Your task to perform on an android device: Play the last video I watched on Youtube Image 0: 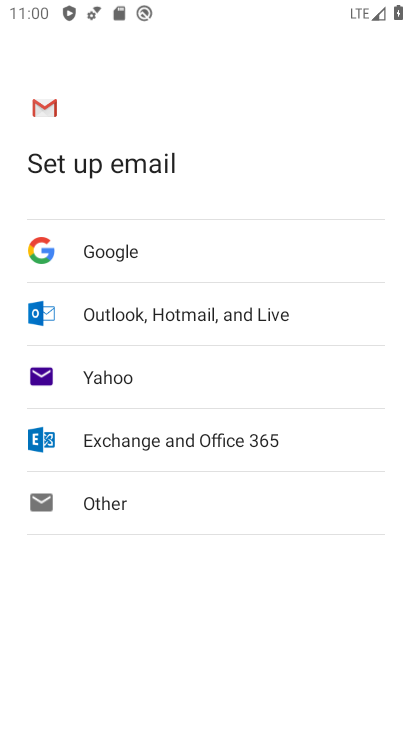
Step 0: press home button
Your task to perform on an android device: Play the last video I watched on Youtube Image 1: 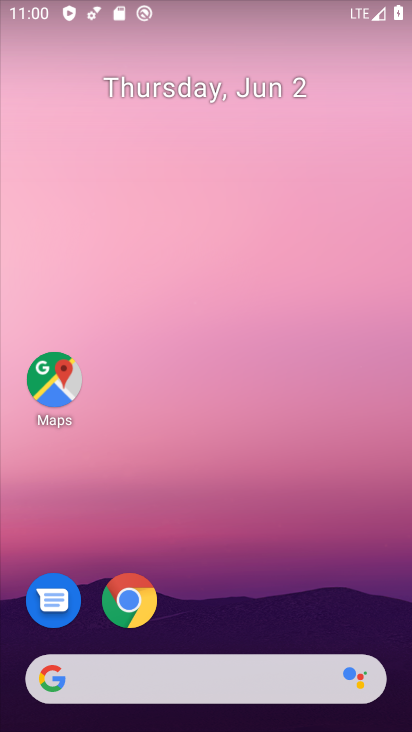
Step 1: drag from (232, 632) to (216, 83)
Your task to perform on an android device: Play the last video I watched on Youtube Image 2: 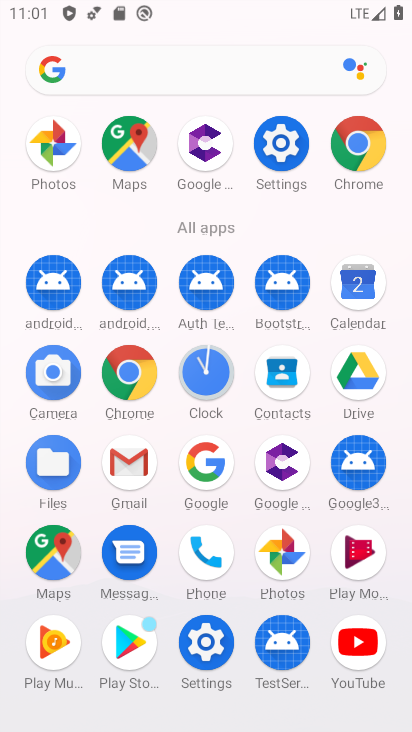
Step 2: click (354, 647)
Your task to perform on an android device: Play the last video I watched on Youtube Image 3: 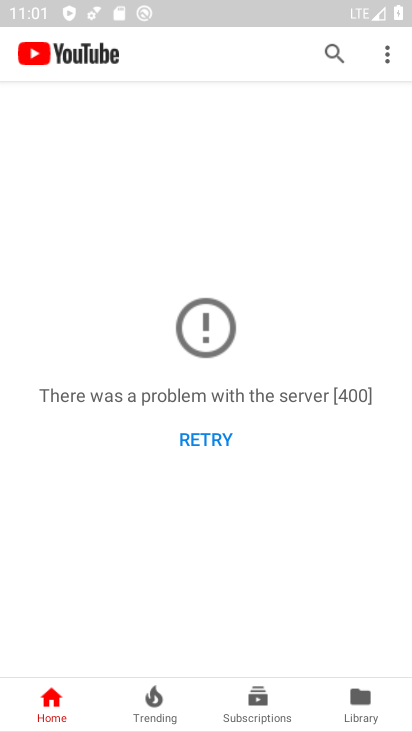
Step 3: click (372, 706)
Your task to perform on an android device: Play the last video I watched on Youtube Image 4: 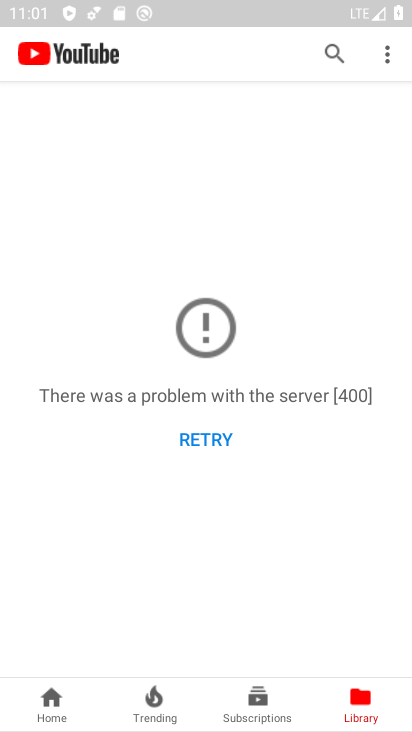
Step 4: task complete